Your task to perform on an android device: turn off location Image 0: 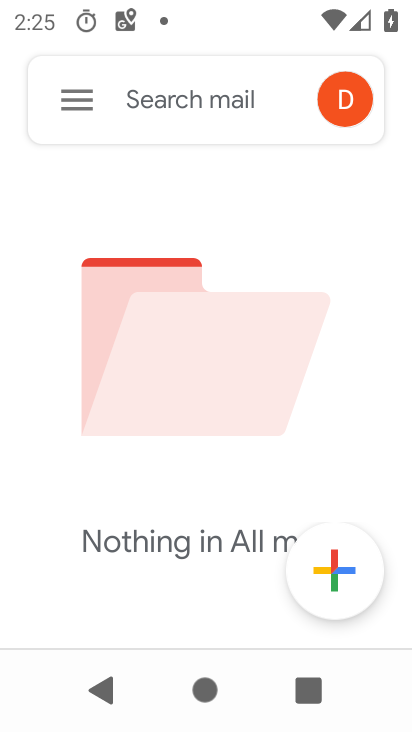
Step 0: press home button
Your task to perform on an android device: turn off location Image 1: 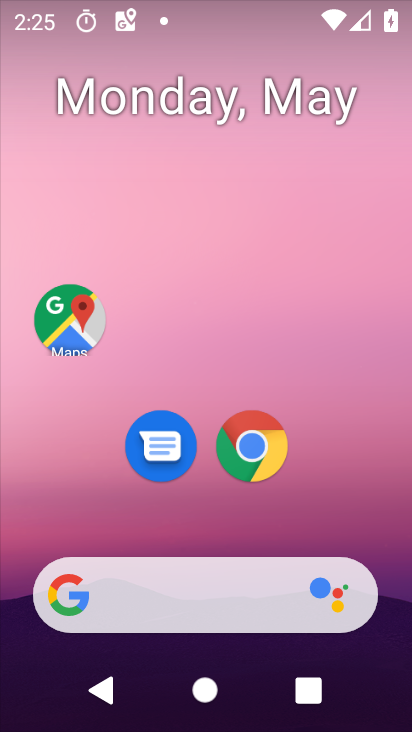
Step 1: drag from (205, 592) to (180, 64)
Your task to perform on an android device: turn off location Image 2: 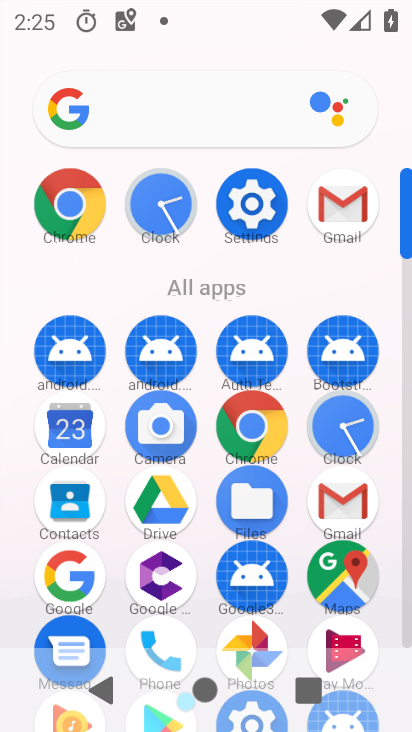
Step 2: click (262, 221)
Your task to perform on an android device: turn off location Image 3: 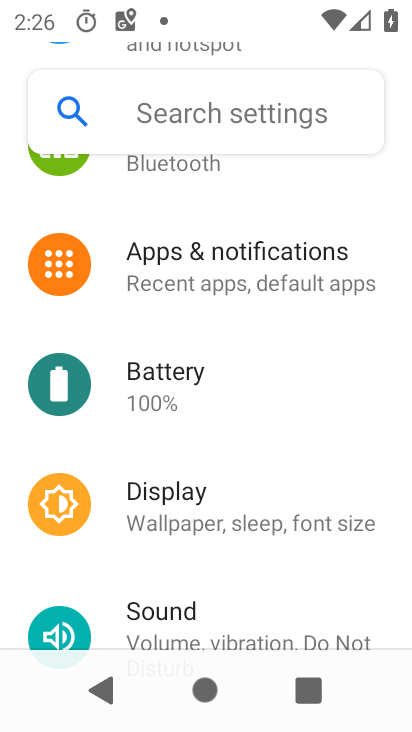
Step 3: drag from (204, 223) to (208, 594)
Your task to perform on an android device: turn off location Image 4: 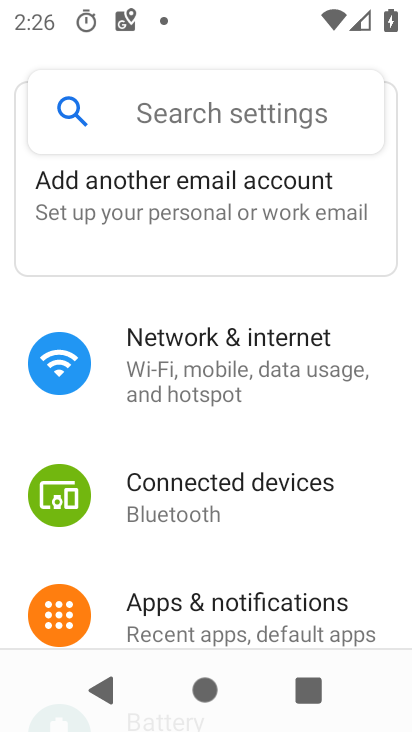
Step 4: drag from (178, 511) to (162, 20)
Your task to perform on an android device: turn off location Image 5: 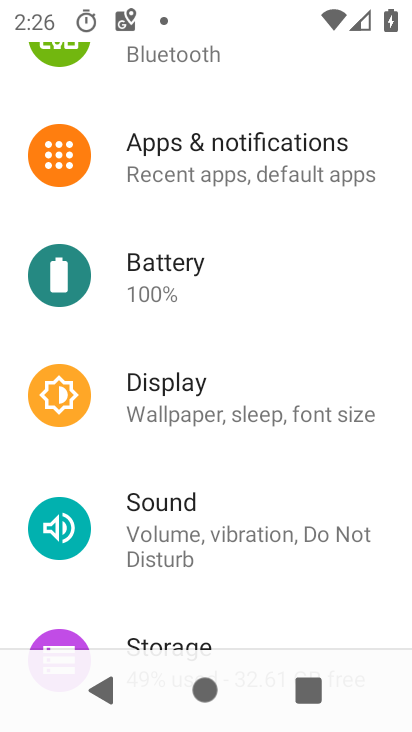
Step 5: drag from (227, 525) to (271, 66)
Your task to perform on an android device: turn off location Image 6: 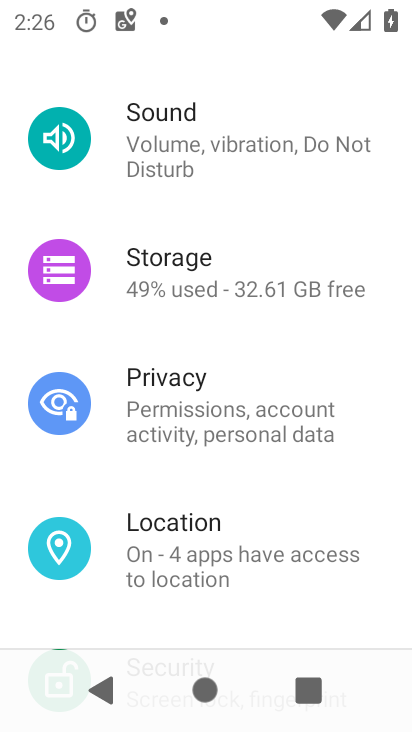
Step 6: click (217, 539)
Your task to perform on an android device: turn off location Image 7: 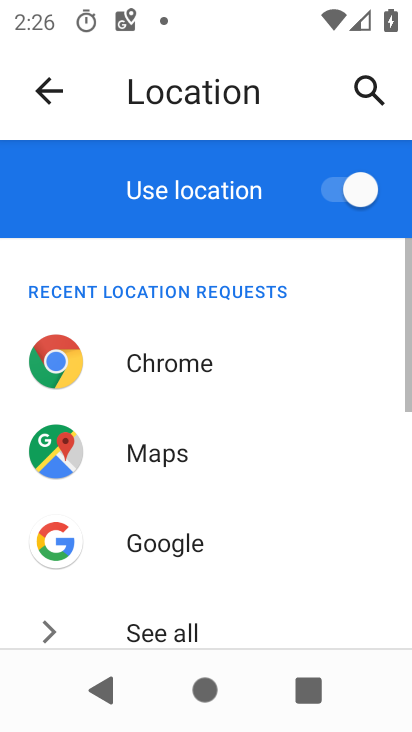
Step 7: click (345, 199)
Your task to perform on an android device: turn off location Image 8: 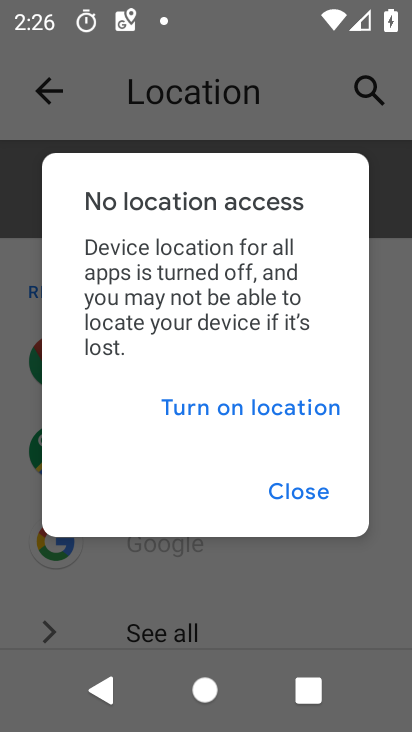
Step 8: click (291, 486)
Your task to perform on an android device: turn off location Image 9: 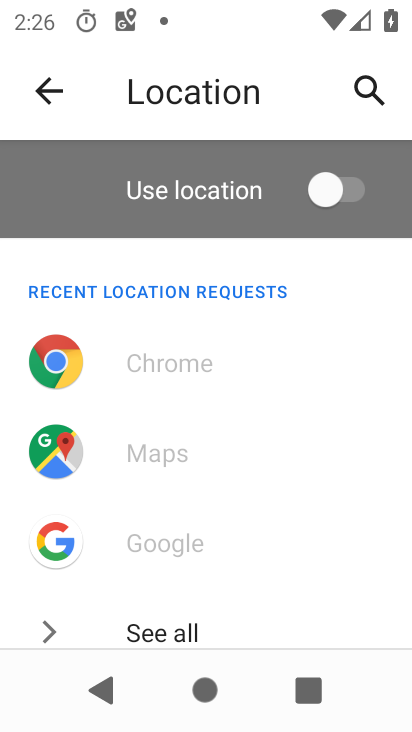
Step 9: task complete